Your task to perform on an android device: turn pop-ups on in chrome Image 0: 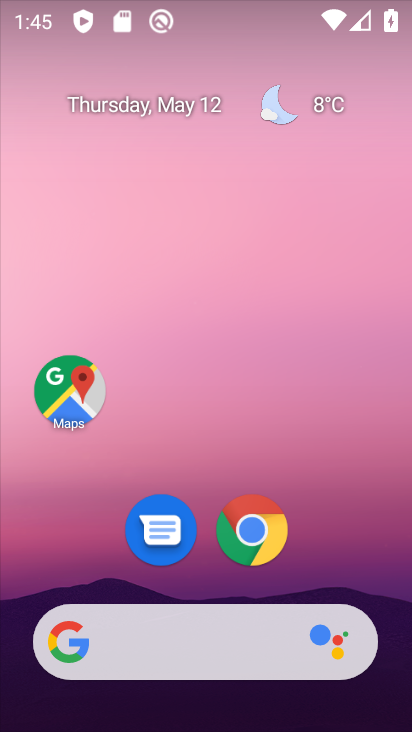
Step 0: click (251, 525)
Your task to perform on an android device: turn pop-ups on in chrome Image 1: 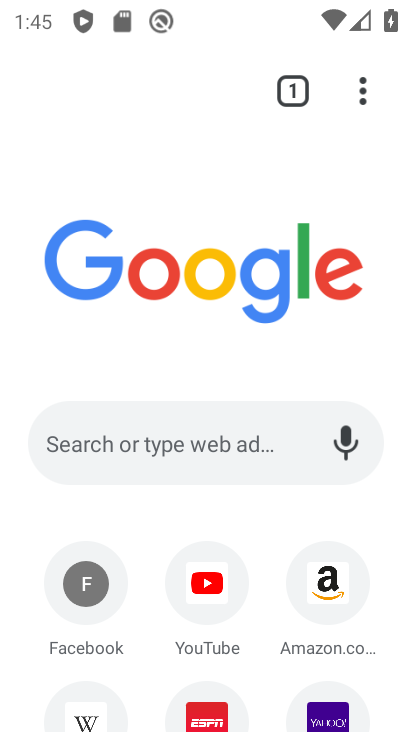
Step 1: click (361, 93)
Your task to perform on an android device: turn pop-ups on in chrome Image 2: 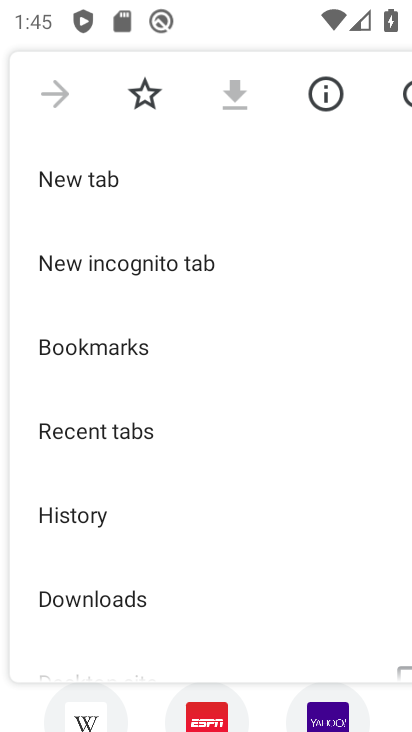
Step 2: drag from (114, 624) to (270, 189)
Your task to perform on an android device: turn pop-ups on in chrome Image 3: 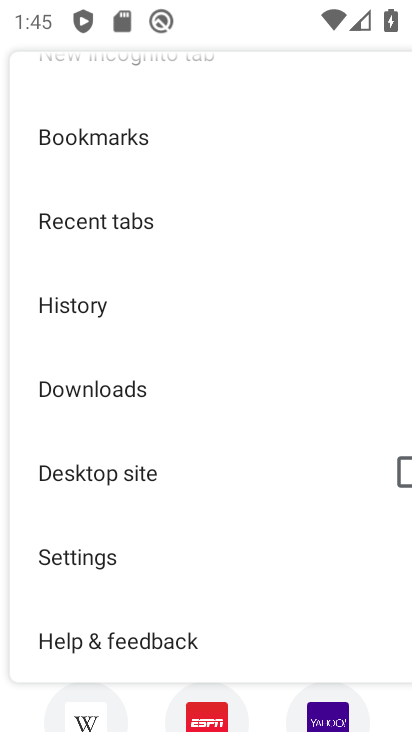
Step 3: click (94, 567)
Your task to perform on an android device: turn pop-ups on in chrome Image 4: 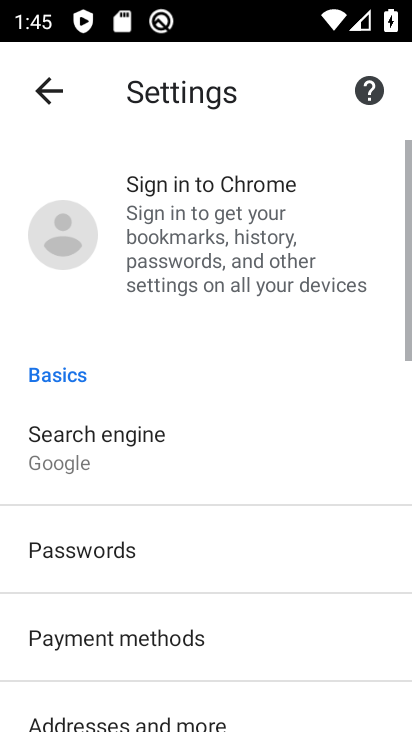
Step 4: drag from (72, 612) to (259, 236)
Your task to perform on an android device: turn pop-ups on in chrome Image 5: 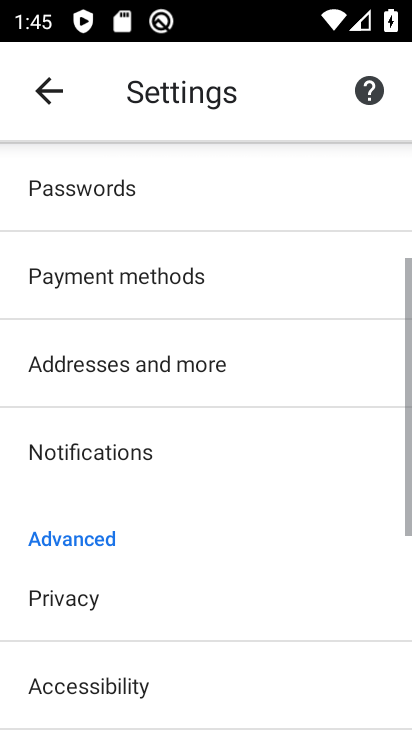
Step 5: drag from (90, 658) to (235, 245)
Your task to perform on an android device: turn pop-ups on in chrome Image 6: 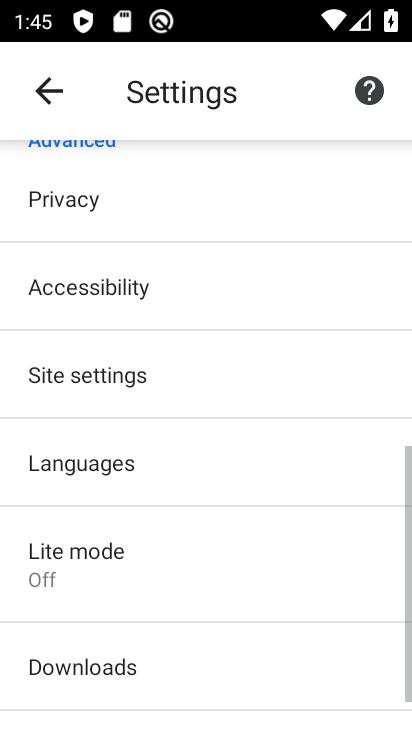
Step 6: click (108, 384)
Your task to perform on an android device: turn pop-ups on in chrome Image 7: 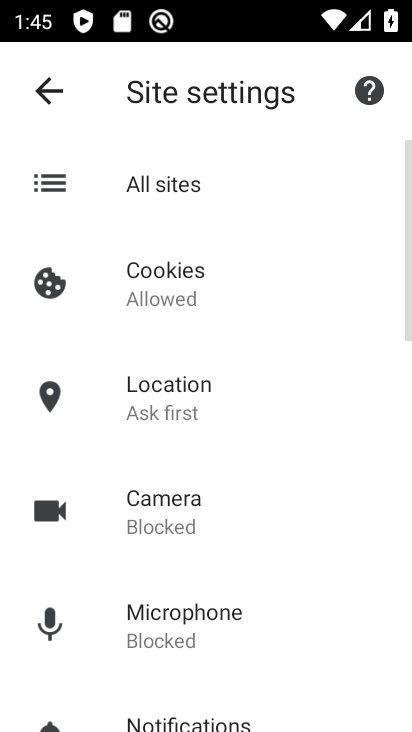
Step 7: drag from (58, 657) to (263, 250)
Your task to perform on an android device: turn pop-ups on in chrome Image 8: 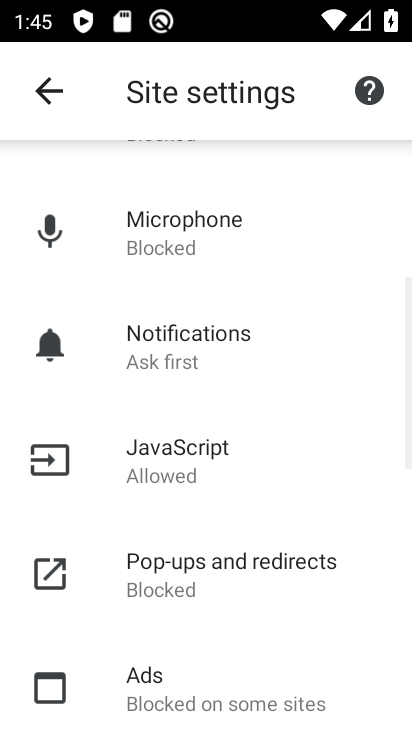
Step 8: click (162, 558)
Your task to perform on an android device: turn pop-ups on in chrome Image 9: 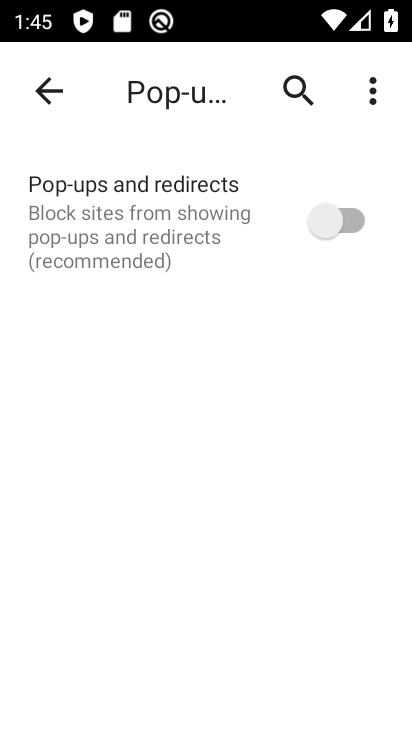
Step 9: click (325, 227)
Your task to perform on an android device: turn pop-ups on in chrome Image 10: 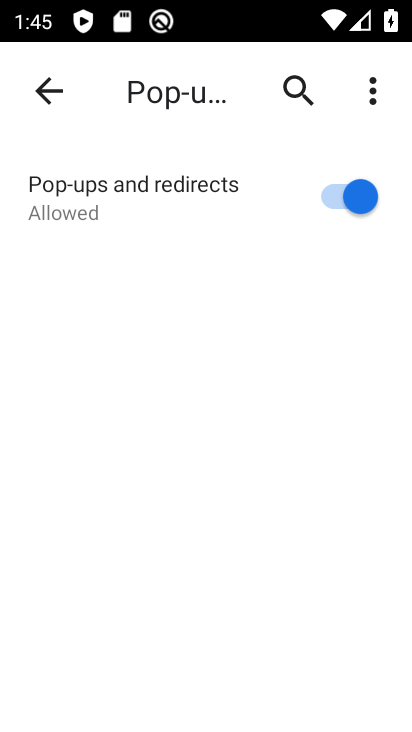
Step 10: task complete